Your task to perform on an android device: change the clock display to show seconds Image 0: 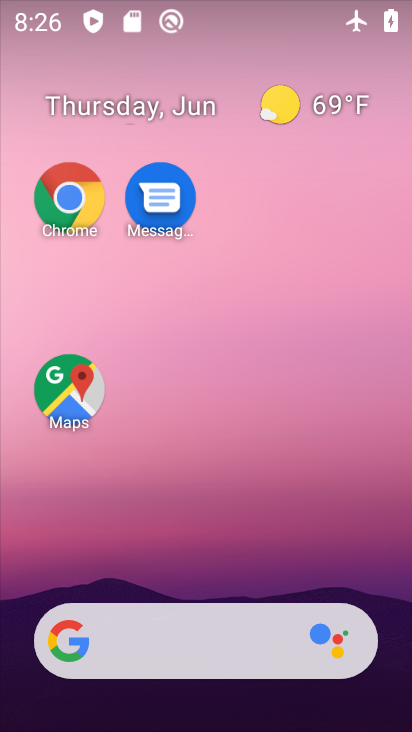
Step 0: drag from (206, 597) to (158, 1)
Your task to perform on an android device: change the clock display to show seconds Image 1: 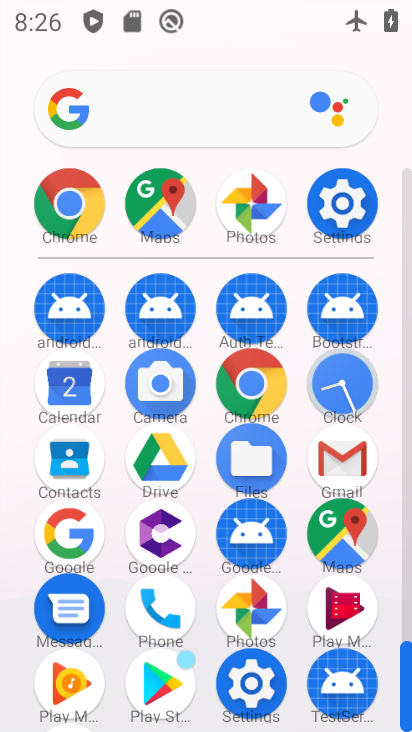
Step 1: click (341, 399)
Your task to perform on an android device: change the clock display to show seconds Image 2: 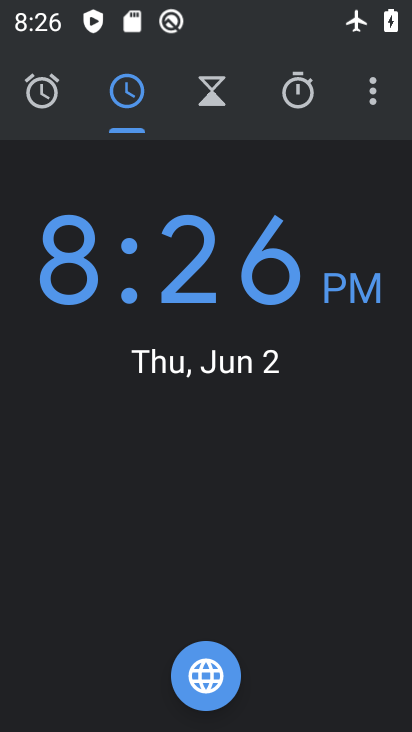
Step 2: click (367, 111)
Your task to perform on an android device: change the clock display to show seconds Image 3: 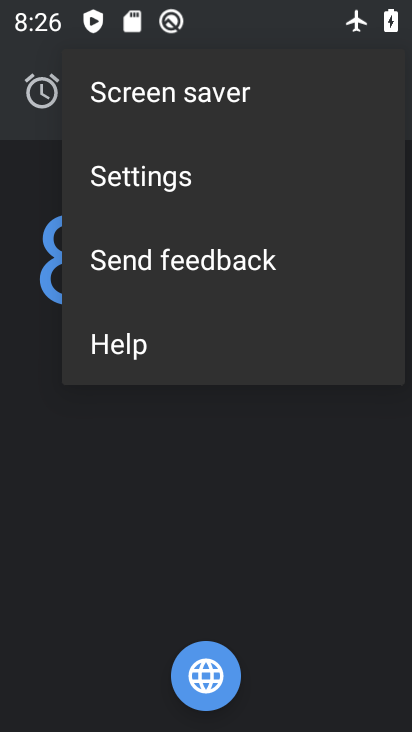
Step 3: click (224, 176)
Your task to perform on an android device: change the clock display to show seconds Image 4: 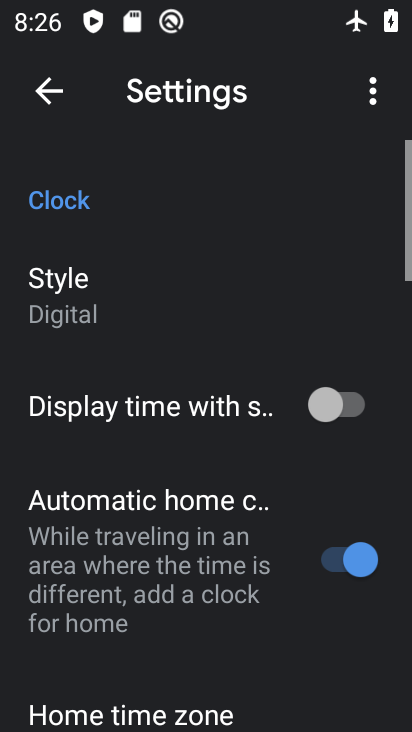
Step 4: drag from (196, 637) to (188, 495)
Your task to perform on an android device: change the clock display to show seconds Image 5: 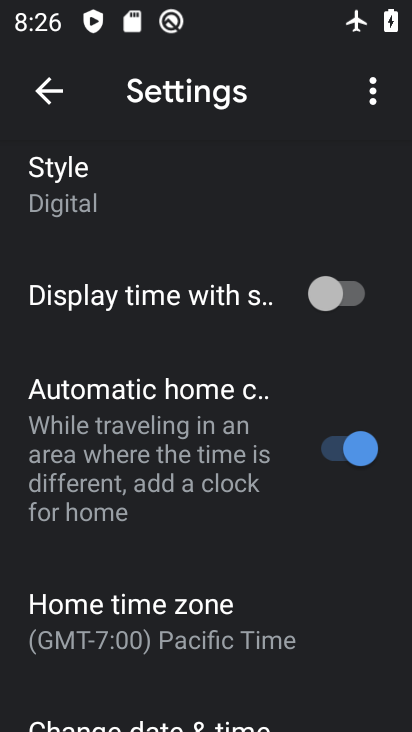
Step 5: click (329, 305)
Your task to perform on an android device: change the clock display to show seconds Image 6: 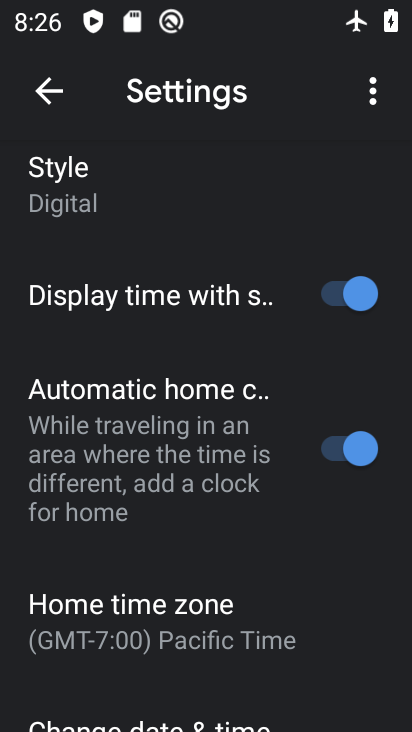
Step 6: task complete